Your task to perform on an android device: Open CNN.com Image 0: 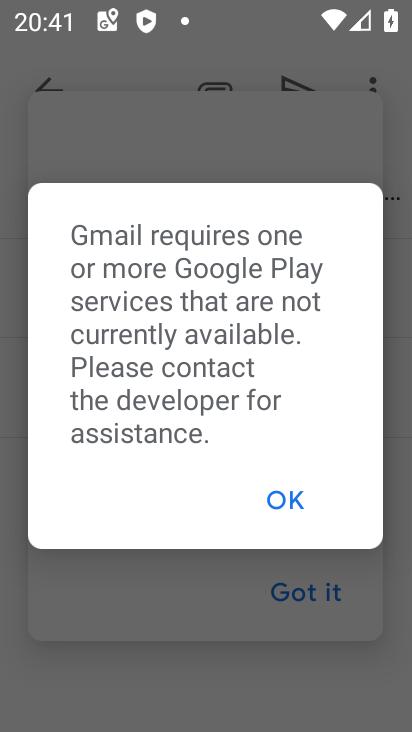
Step 0: press home button
Your task to perform on an android device: Open CNN.com Image 1: 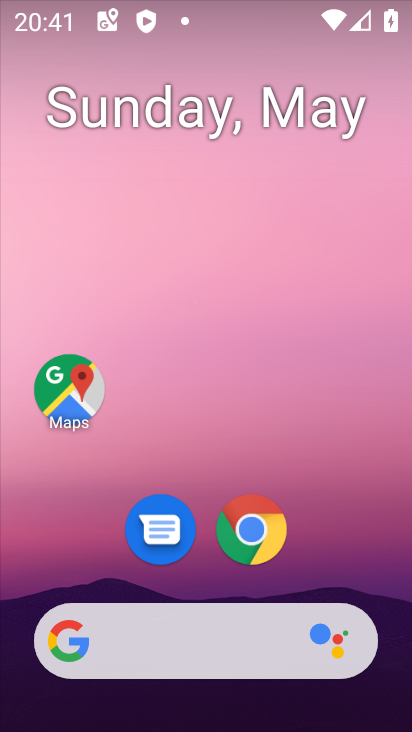
Step 1: click (257, 535)
Your task to perform on an android device: Open CNN.com Image 2: 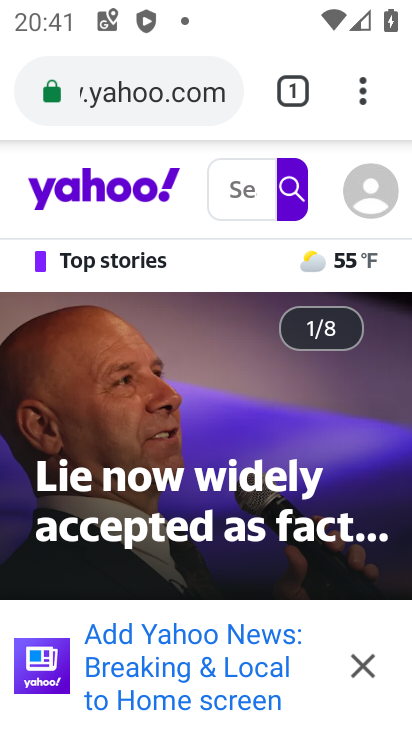
Step 2: click (103, 98)
Your task to perform on an android device: Open CNN.com Image 3: 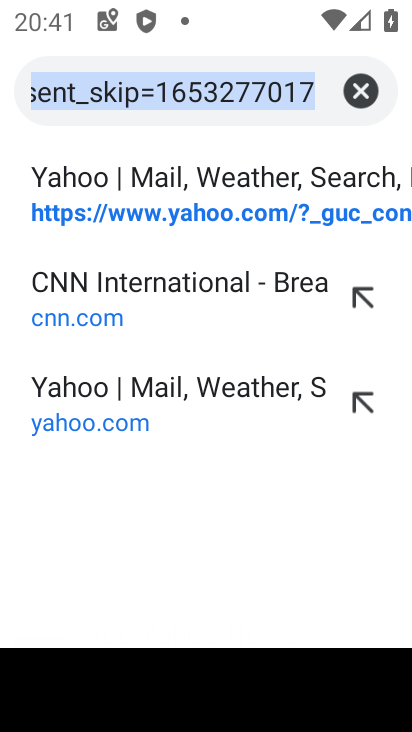
Step 3: click (355, 91)
Your task to perform on an android device: Open CNN.com Image 4: 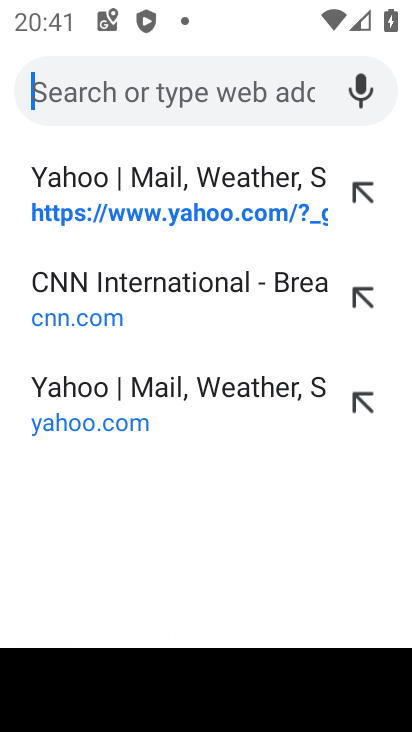
Step 4: click (49, 322)
Your task to perform on an android device: Open CNN.com Image 5: 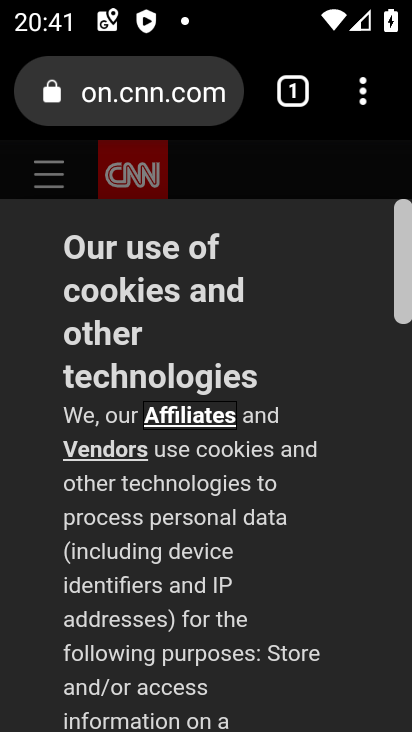
Step 5: task complete